Your task to perform on an android device: Search for Mexican restaurants on Maps Image 0: 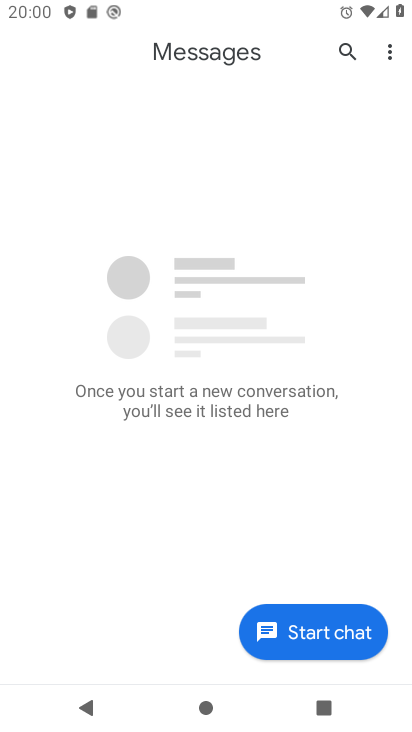
Step 0: press home button
Your task to perform on an android device: Search for Mexican restaurants on Maps Image 1: 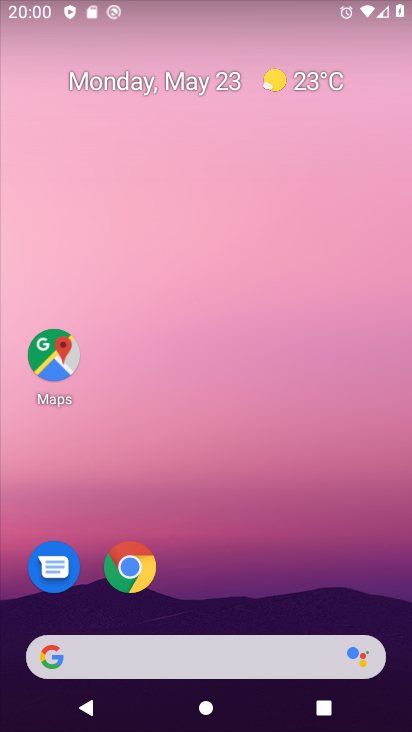
Step 1: click (59, 356)
Your task to perform on an android device: Search for Mexican restaurants on Maps Image 2: 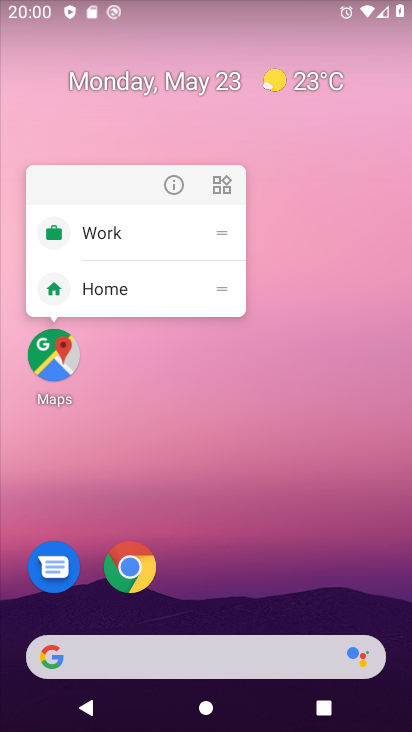
Step 2: click (53, 362)
Your task to perform on an android device: Search for Mexican restaurants on Maps Image 3: 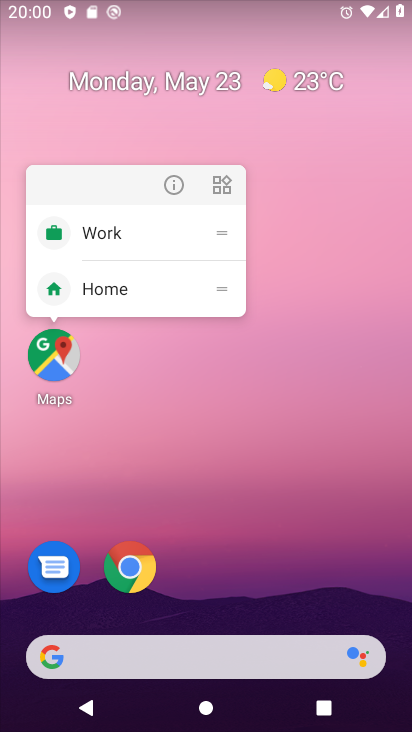
Step 3: click (49, 372)
Your task to perform on an android device: Search for Mexican restaurants on Maps Image 4: 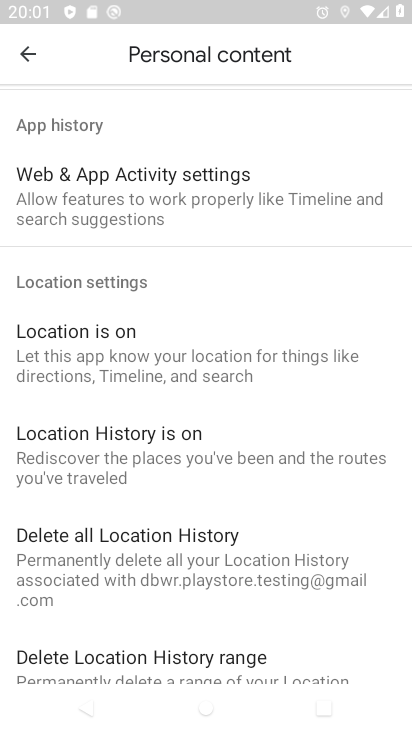
Step 4: press home button
Your task to perform on an android device: Search for Mexican restaurants on Maps Image 5: 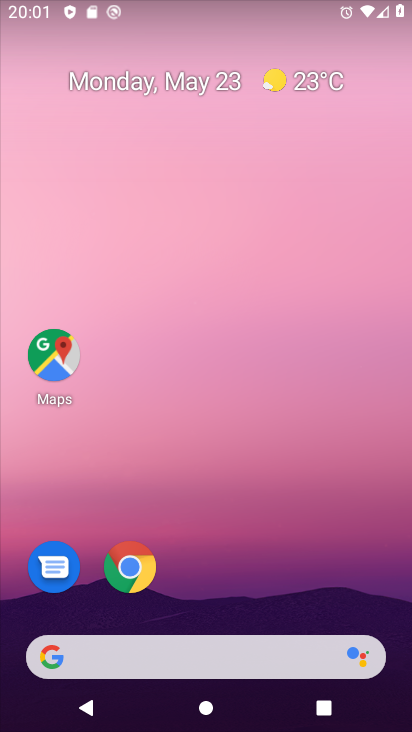
Step 5: click (52, 350)
Your task to perform on an android device: Search for Mexican restaurants on Maps Image 6: 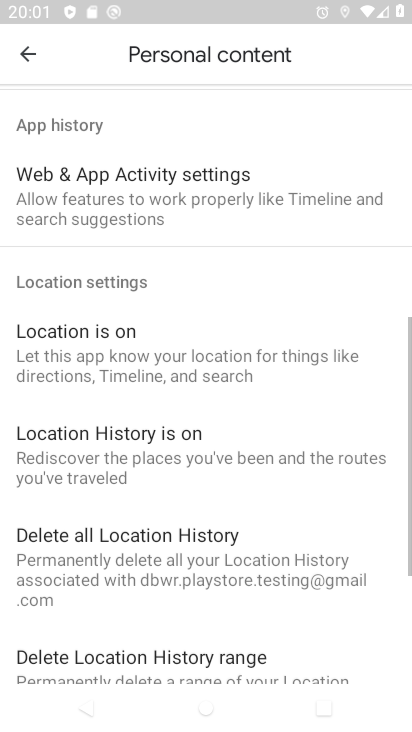
Step 6: click (26, 57)
Your task to perform on an android device: Search for Mexican restaurants on Maps Image 7: 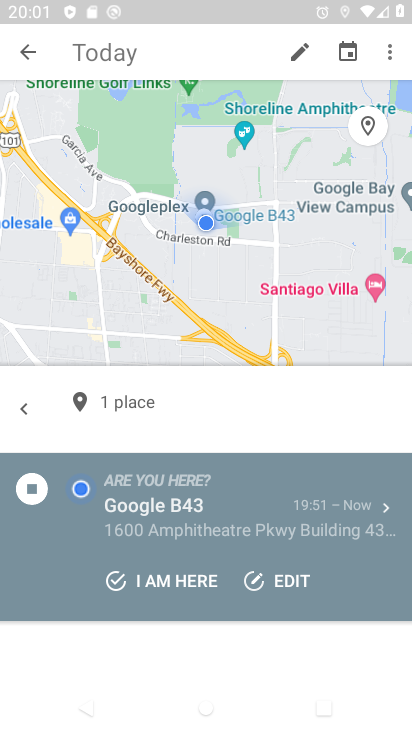
Step 7: click (29, 64)
Your task to perform on an android device: Search for Mexican restaurants on Maps Image 8: 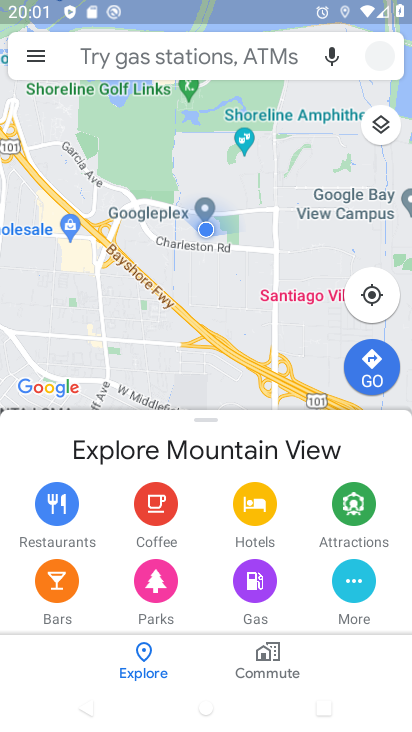
Step 8: click (29, 60)
Your task to perform on an android device: Search for Mexican restaurants on Maps Image 9: 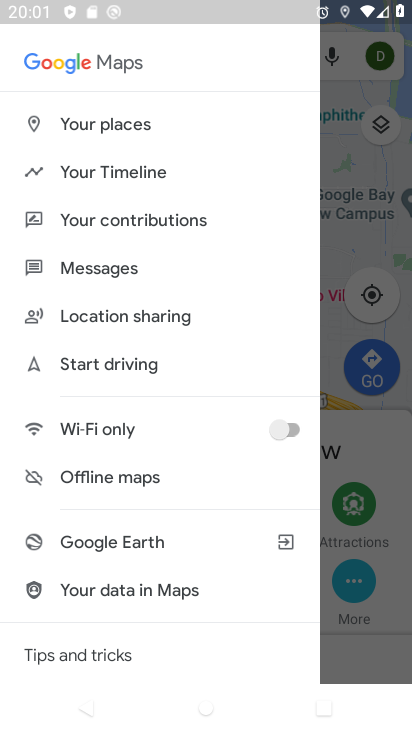
Step 9: click (369, 143)
Your task to perform on an android device: Search for Mexican restaurants on Maps Image 10: 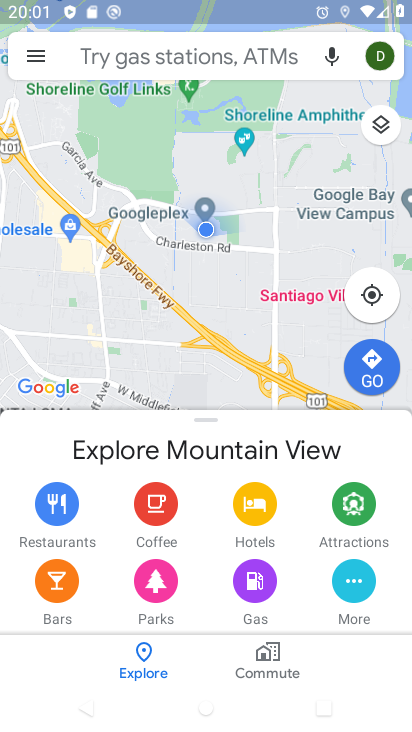
Step 10: click (208, 47)
Your task to perform on an android device: Search for Mexican restaurants on Maps Image 11: 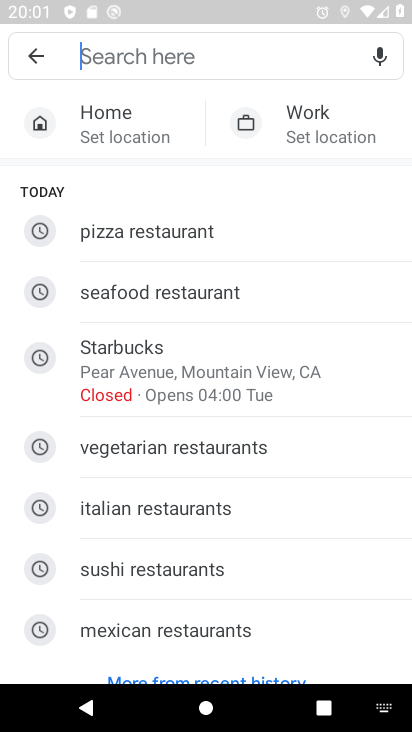
Step 11: click (240, 631)
Your task to perform on an android device: Search for Mexican restaurants on Maps Image 12: 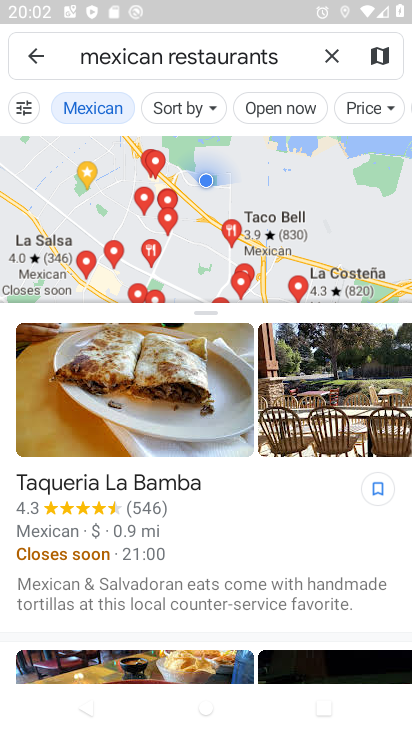
Step 12: task complete